Your task to perform on an android device: What is the recent news? Image 0: 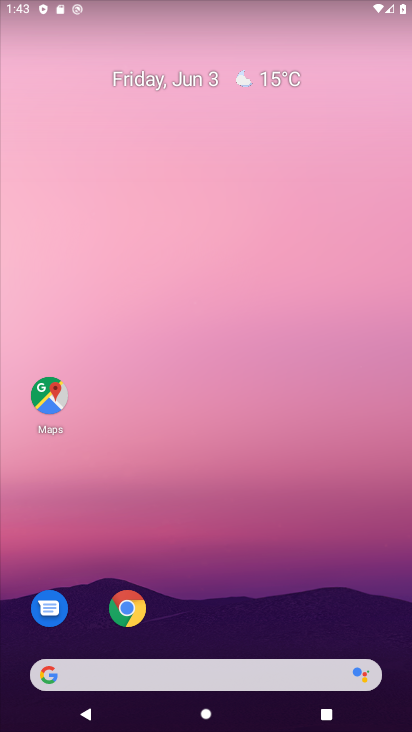
Step 0: drag from (7, 274) to (347, 241)
Your task to perform on an android device: What is the recent news? Image 1: 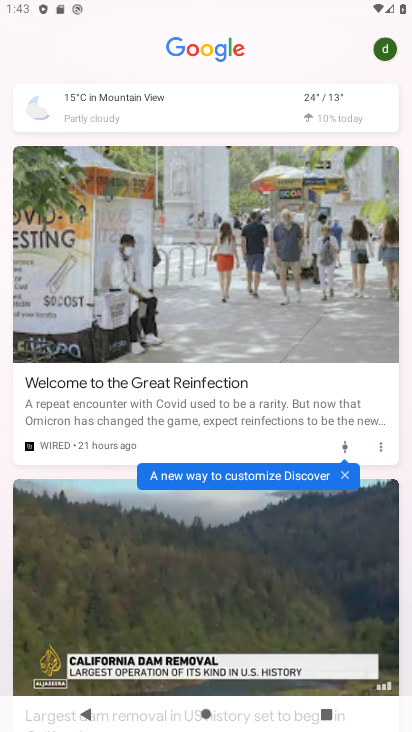
Step 1: task complete